Your task to perform on an android device: What's the weather? Image 0: 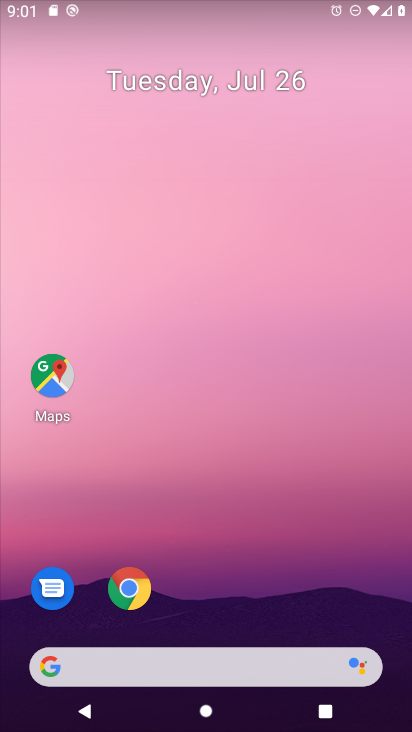
Step 0: drag from (191, 656) to (136, 194)
Your task to perform on an android device: What's the weather? Image 1: 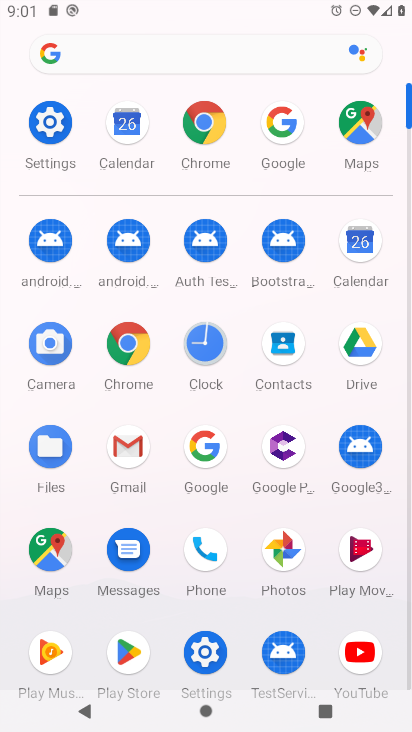
Step 1: click (203, 462)
Your task to perform on an android device: What's the weather? Image 2: 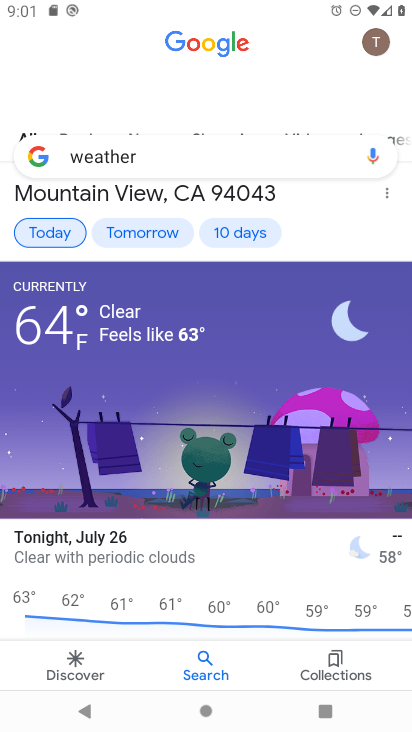
Step 2: task complete